Your task to perform on an android device: Open the map Image 0: 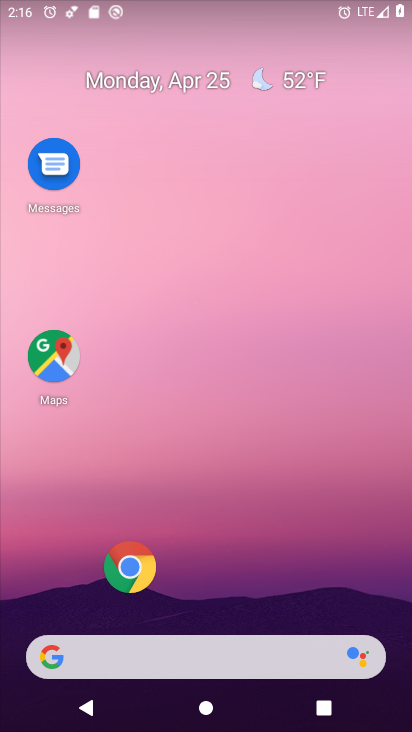
Step 0: drag from (267, 252) to (267, 162)
Your task to perform on an android device: Open the map Image 1: 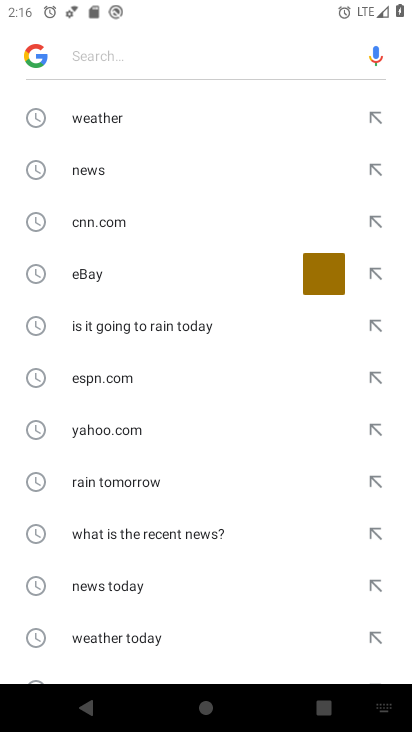
Step 1: press home button
Your task to perform on an android device: Open the map Image 2: 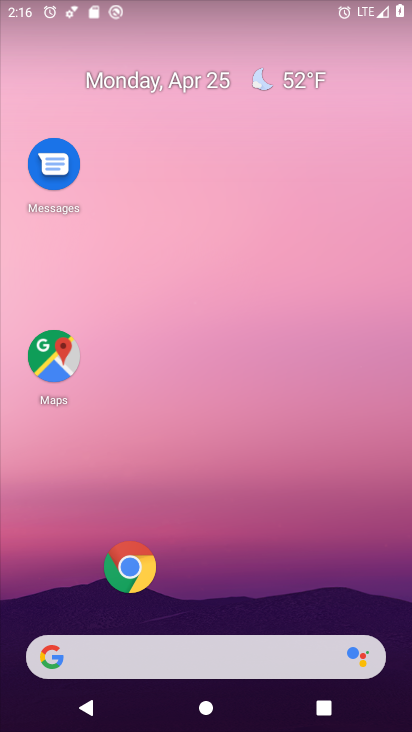
Step 2: drag from (181, 636) to (234, 284)
Your task to perform on an android device: Open the map Image 3: 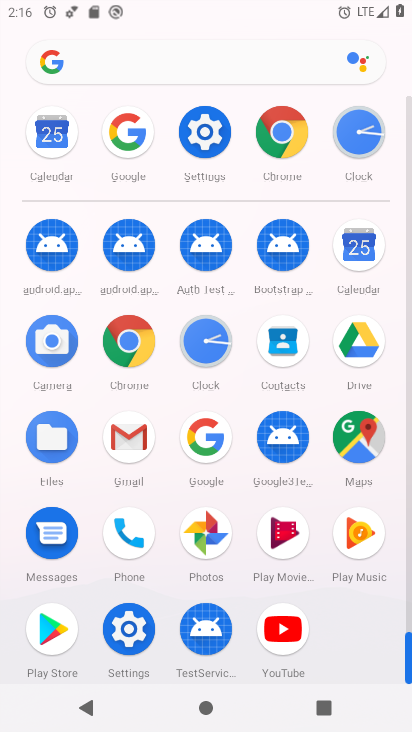
Step 3: click (362, 442)
Your task to perform on an android device: Open the map Image 4: 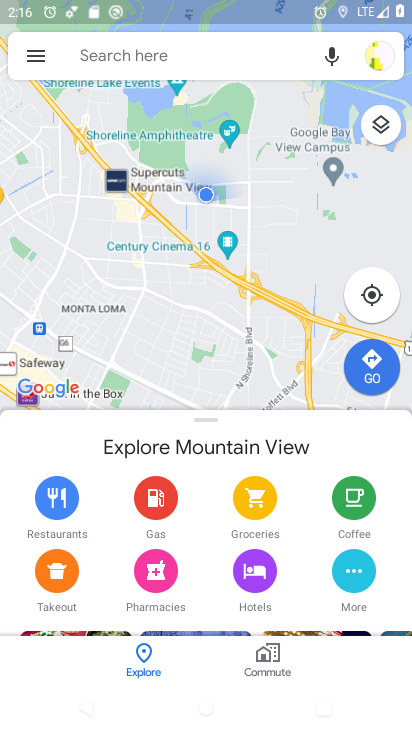
Step 4: task complete